Your task to perform on an android device: open the mobile data screen to see how much data has been used Image 0: 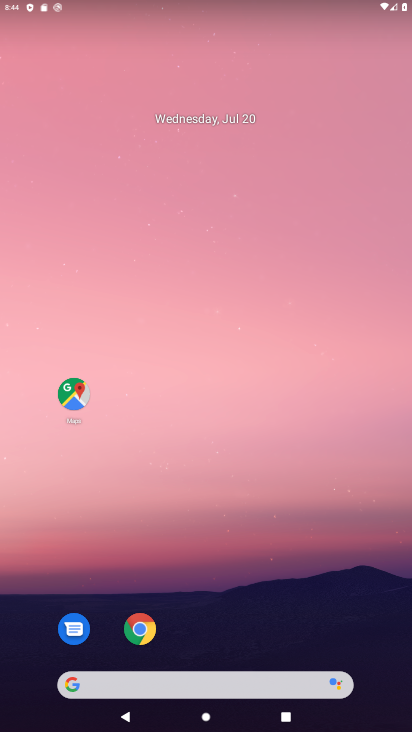
Step 0: drag from (388, 667) to (283, 8)
Your task to perform on an android device: open the mobile data screen to see how much data has been used Image 1: 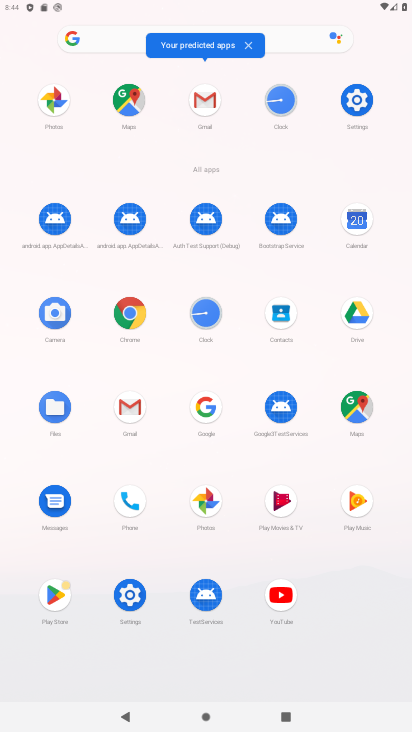
Step 1: click (130, 595)
Your task to perform on an android device: open the mobile data screen to see how much data has been used Image 2: 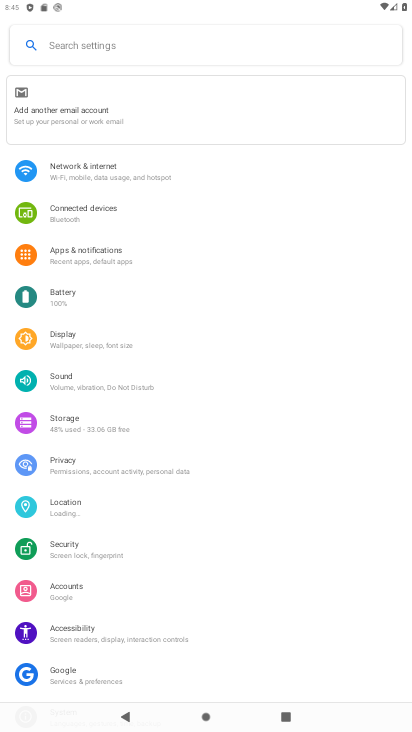
Step 2: click (88, 173)
Your task to perform on an android device: open the mobile data screen to see how much data has been used Image 3: 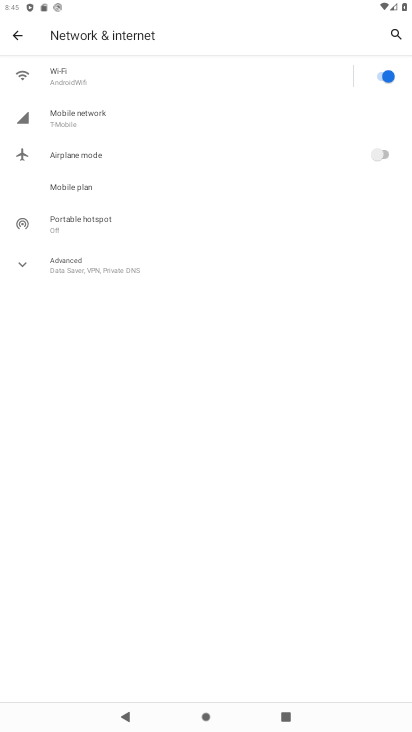
Step 3: click (69, 112)
Your task to perform on an android device: open the mobile data screen to see how much data has been used Image 4: 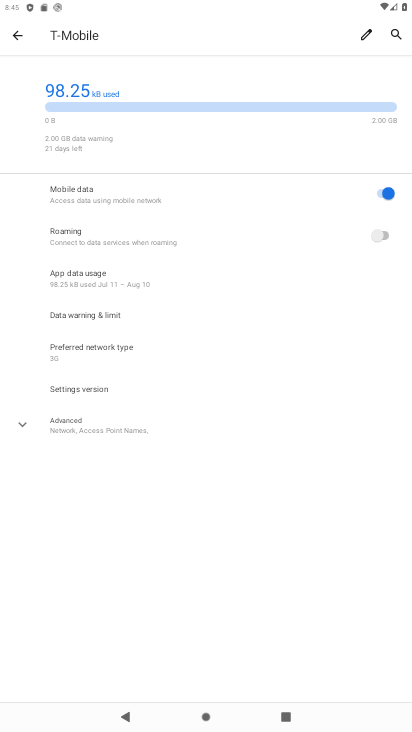
Step 4: task complete